Your task to perform on an android device: turn on bluetooth scan Image 0: 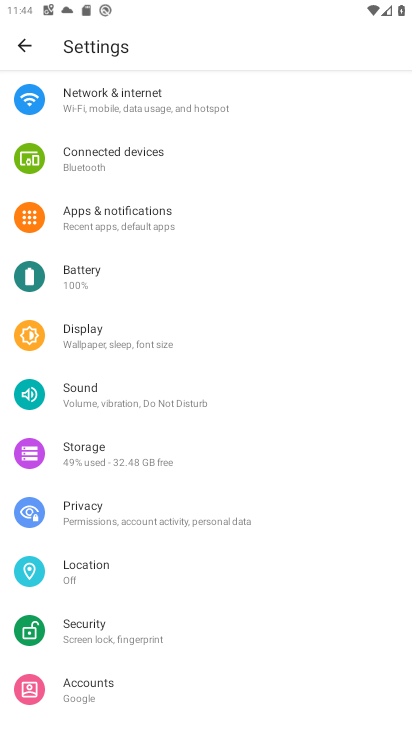
Step 0: click (109, 572)
Your task to perform on an android device: turn on bluetooth scan Image 1: 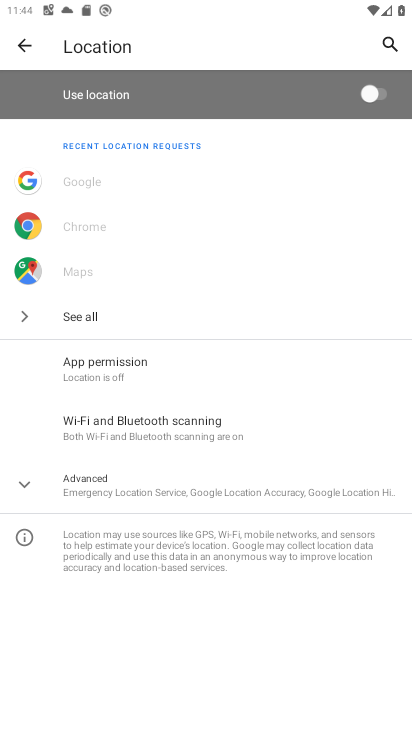
Step 1: click (218, 434)
Your task to perform on an android device: turn on bluetooth scan Image 2: 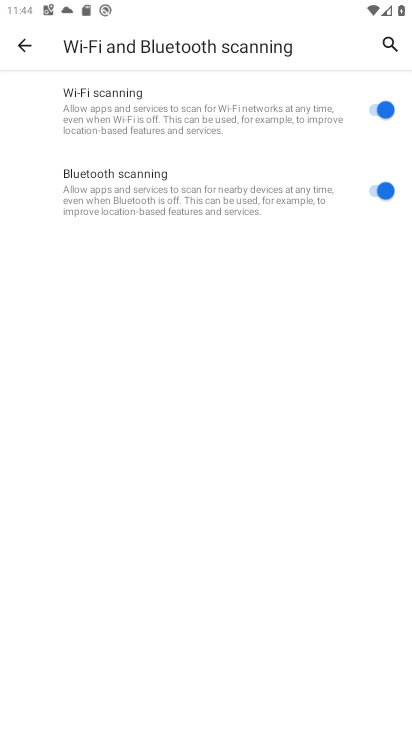
Step 2: task complete